Your task to perform on an android device: turn on sleep mode Image 0: 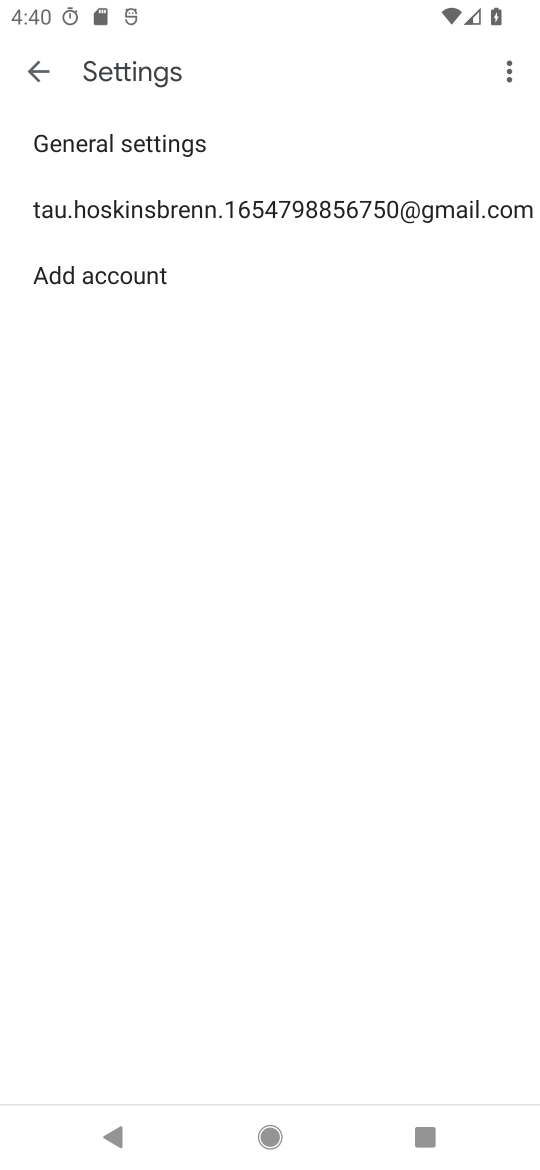
Step 0: press home button
Your task to perform on an android device: turn on sleep mode Image 1: 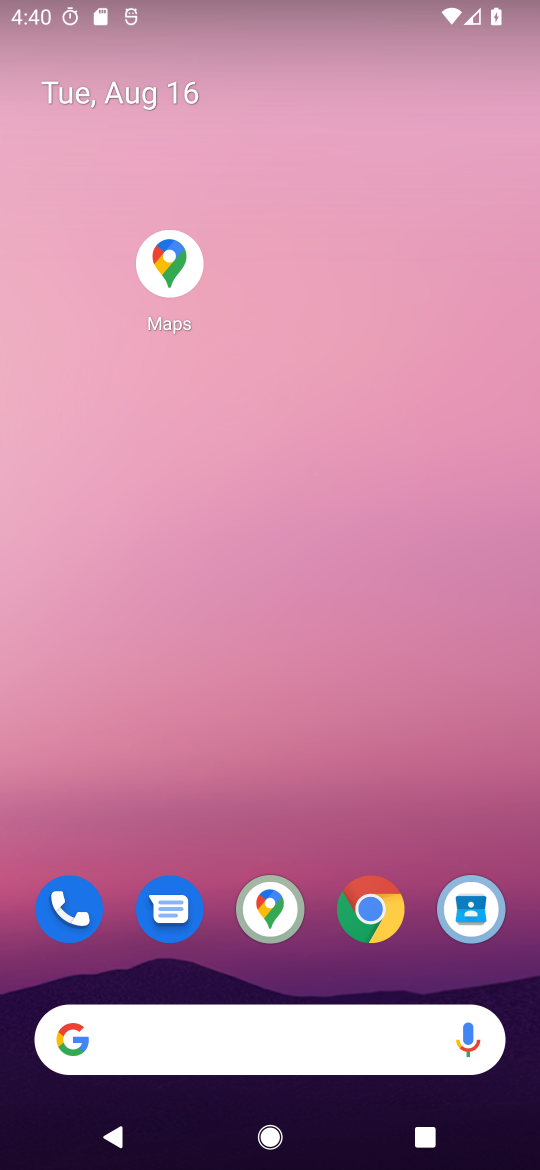
Step 1: drag from (212, 965) to (262, 213)
Your task to perform on an android device: turn on sleep mode Image 2: 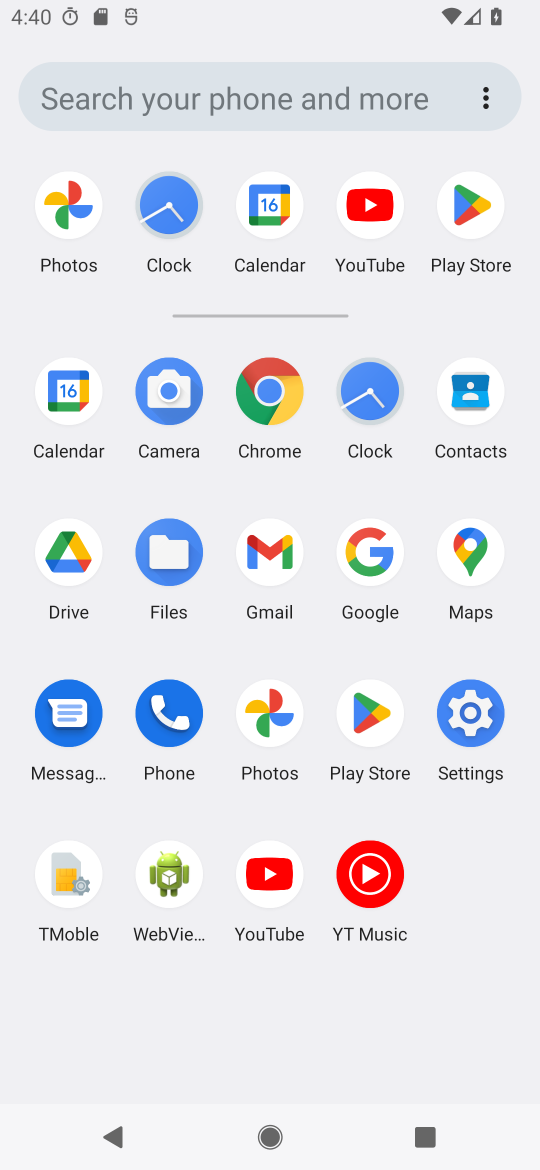
Step 2: click (471, 700)
Your task to perform on an android device: turn on sleep mode Image 3: 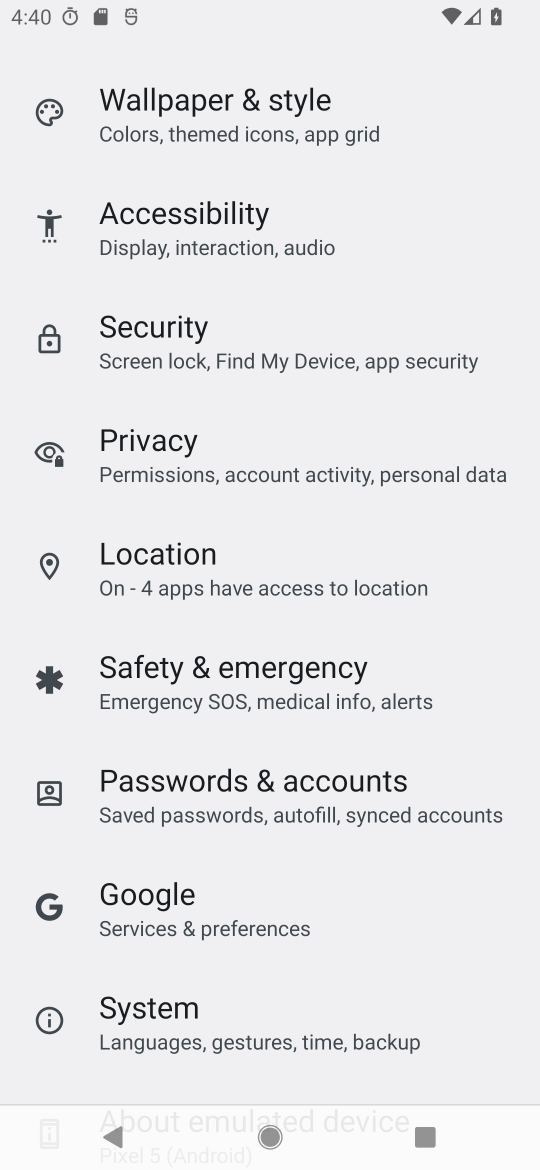
Step 3: task complete